Your task to perform on an android device: toggle javascript in the chrome app Image 0: 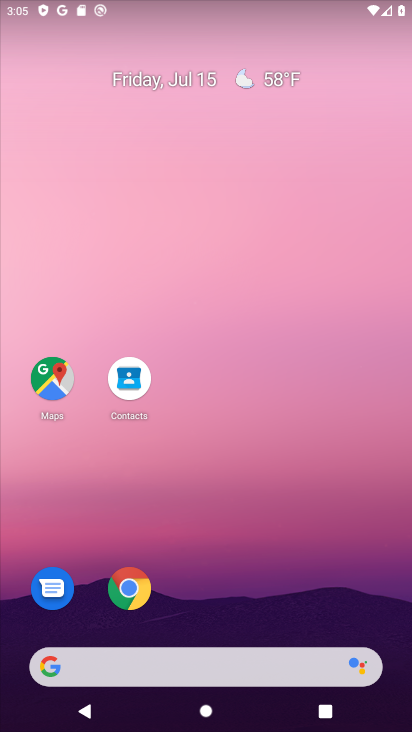
Step 0: click (143, 602)
Your task to perform on an android device: toggle javascript in the chrome app Image 1: 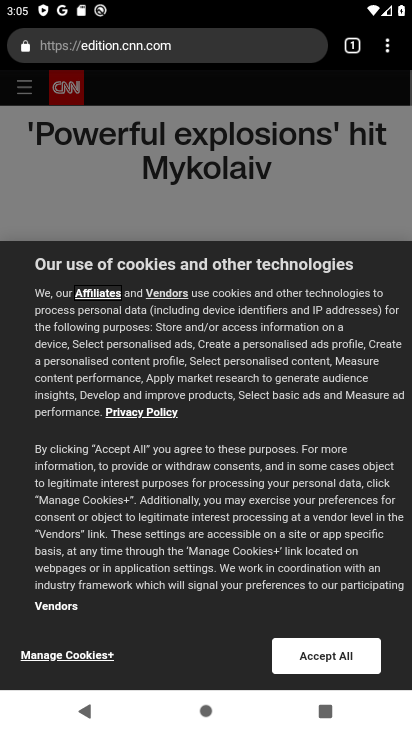
Step 1: click (399, 52)
Your task to perform on an android device: toggle javascript in the chrome app Image 2: 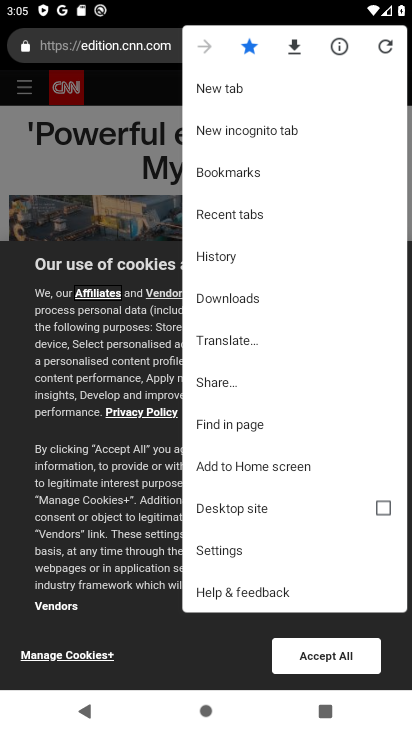
Step 2: click (278, 560)
Your task to perform on an android device: toggle javascript in the chrome app Image 3: 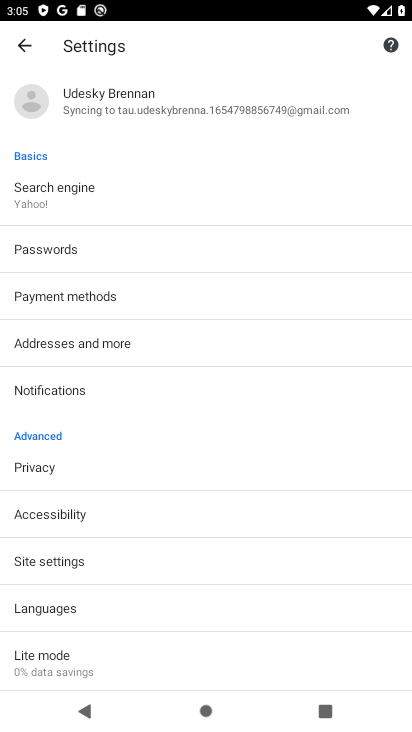
Step 3: click (158, 570)
Your task to perform on an android device: toggle javascript in the chrome app Image 4: 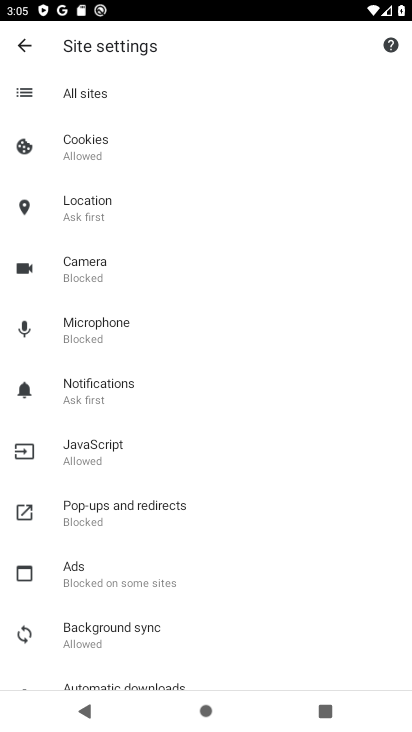
Step 4: click (156, 455)
Your task to perform on an android device: toggle javascript in the chrome app Image 5: 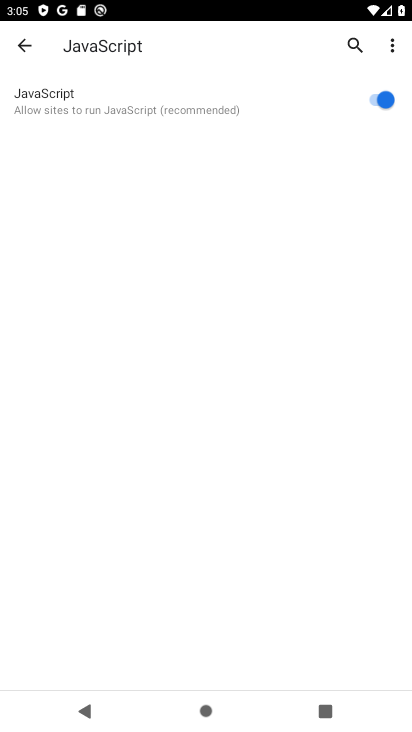
Step 5: click (383, 109)
Your task to perform on an android device: toggle javascript in the chrome app Image 6: 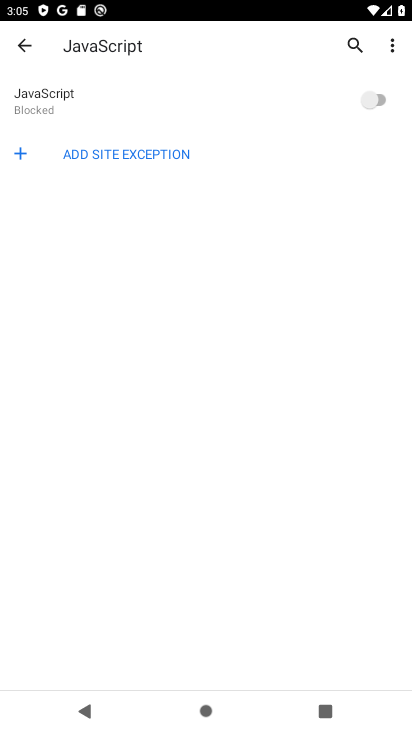
Step 6: task complete